Your task to perform on an android device: open device folders in google photos Image 0: 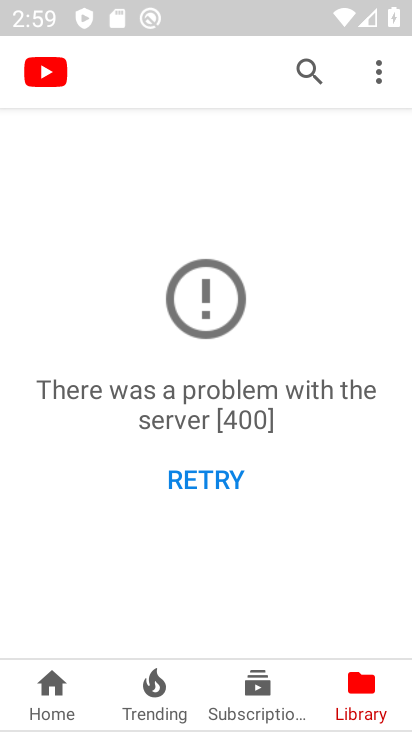
Step 0: press home button
Your task to perform on an android device: open device folders in google photos Image 1: 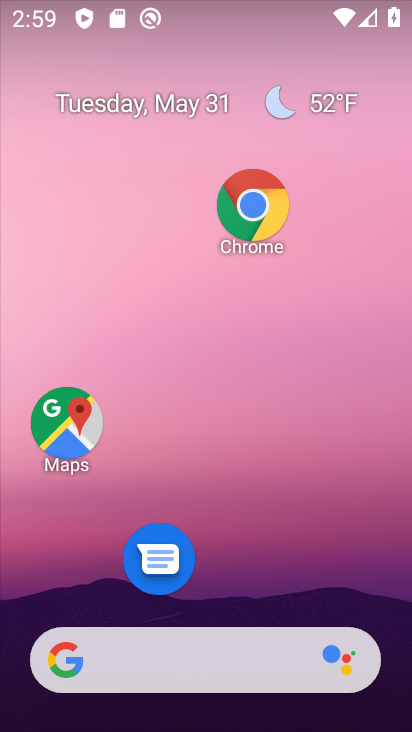
Step 1: drag from (192, 602) to (206, 183)
Your task to perform on an android device: open device folders in google photos Image 2: 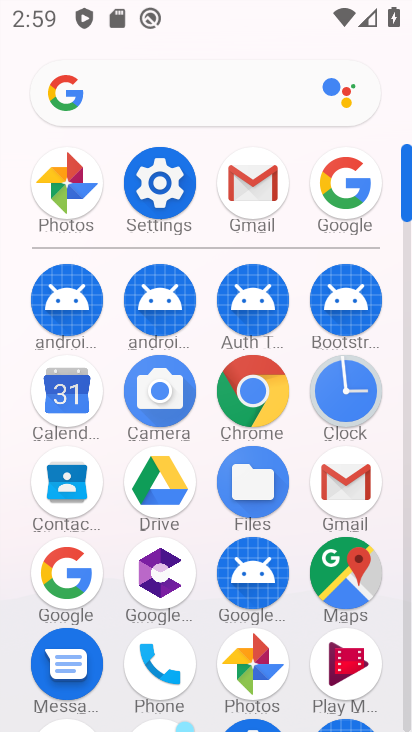
Step 2: click (82, 189)
Your task to perform on an android device: open device folders in google photos Image 3: 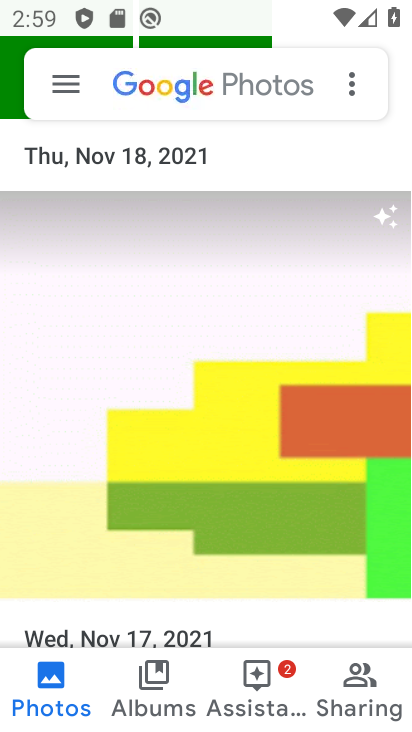
Step 3: click (64, 98)
Your task to perform on an android device: open device folders in google photos Image 4: 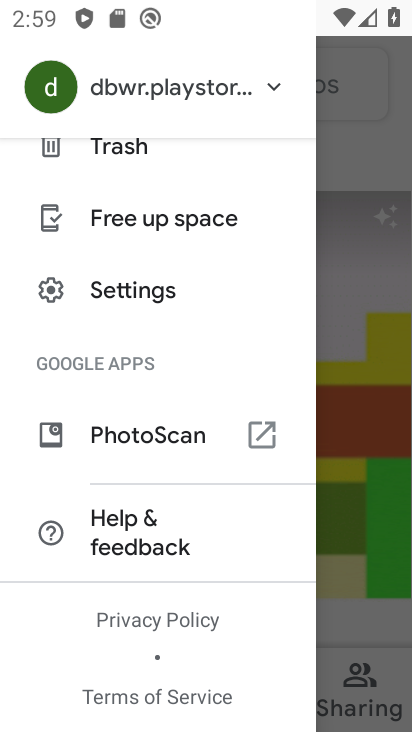
Step 4: drag from (129, 159) to (128, 463)
Your task to perform on an android device: open device folders in google photos Image 5: 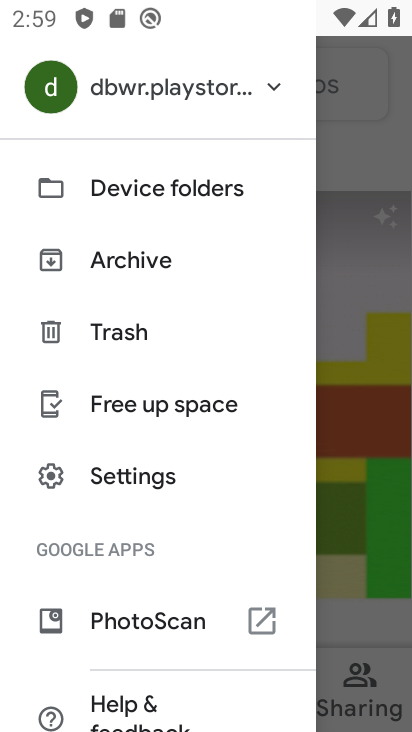
Step 5: click (125, 192)
Your task to perform on an android device: open device folders in google photos Image 6: 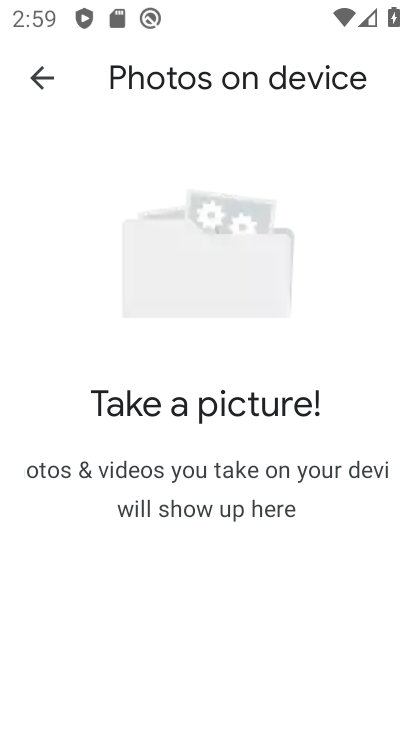
Step 6: task complete